Your task to perform on an android device: change keyboard looks Image 0: 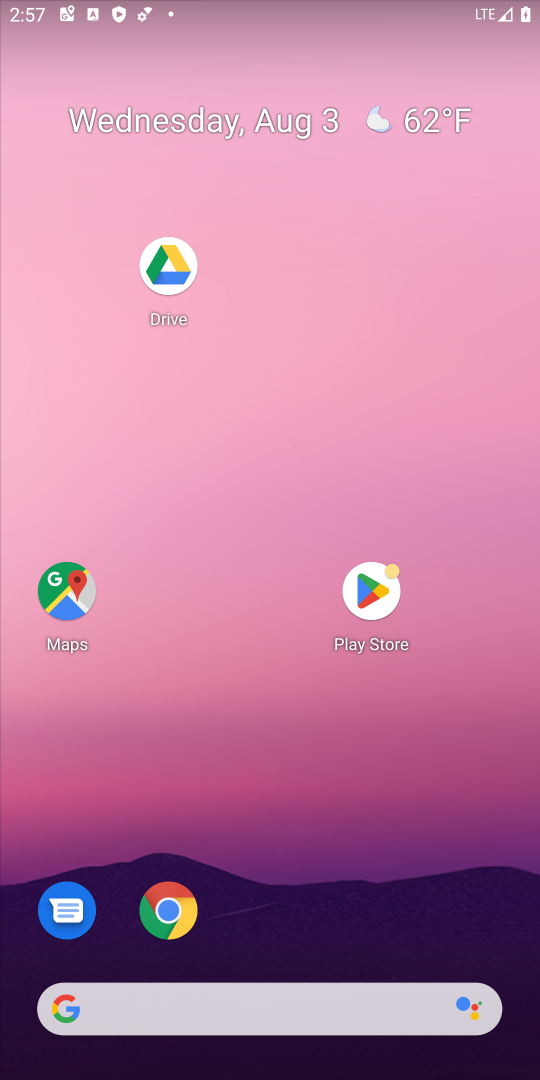
Step 0: drag from (250, 824) to (407, 22)
Your task to perform on an android device: change keyboard looks Image 1: 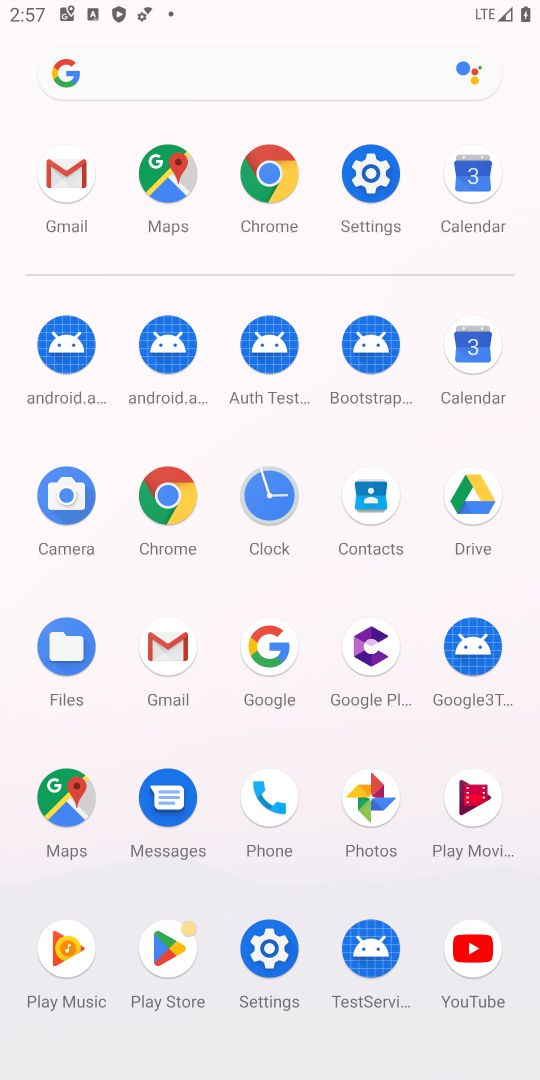
Step 1: click (380, 168)
Your task to perform on an android device: change keyboard looks Image 2: 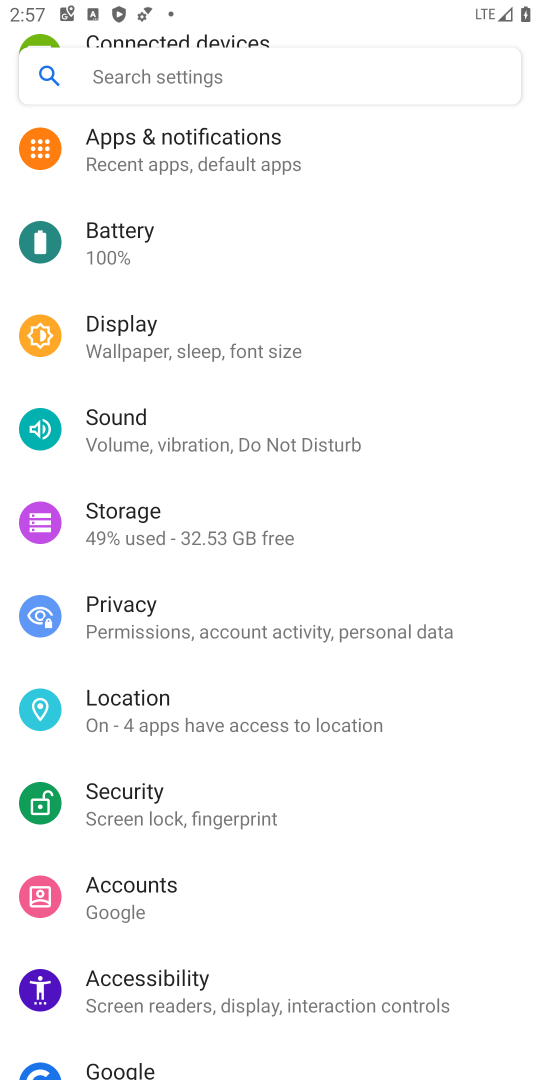
Step 2: drag from (246, 1006) to (206, 181)
Your task to perform on an android device: change keyboard looks Image 3: 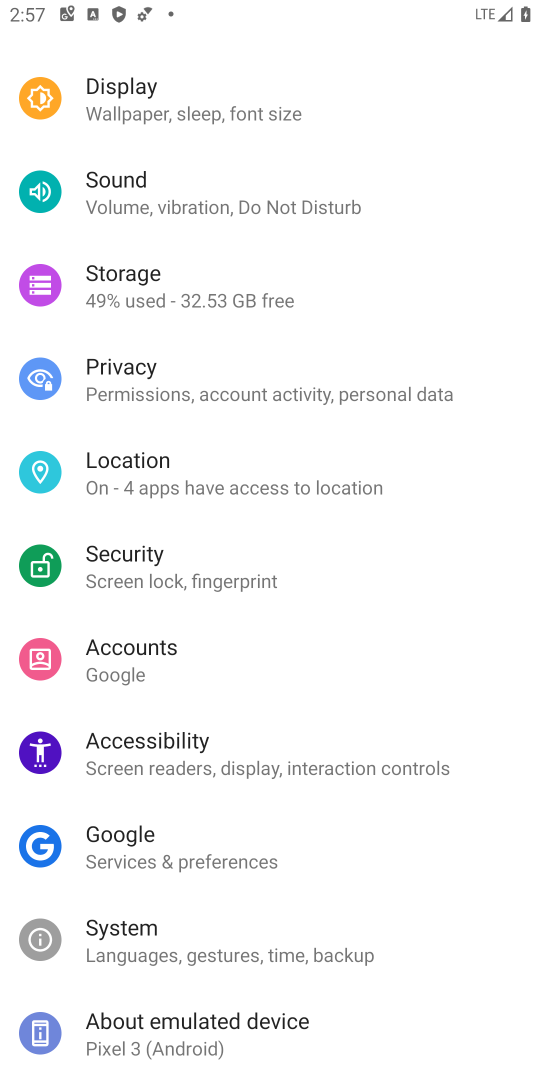
Step 3: click (254, 946)
Your task to perform on an android device: change keyboard looks Image 4: 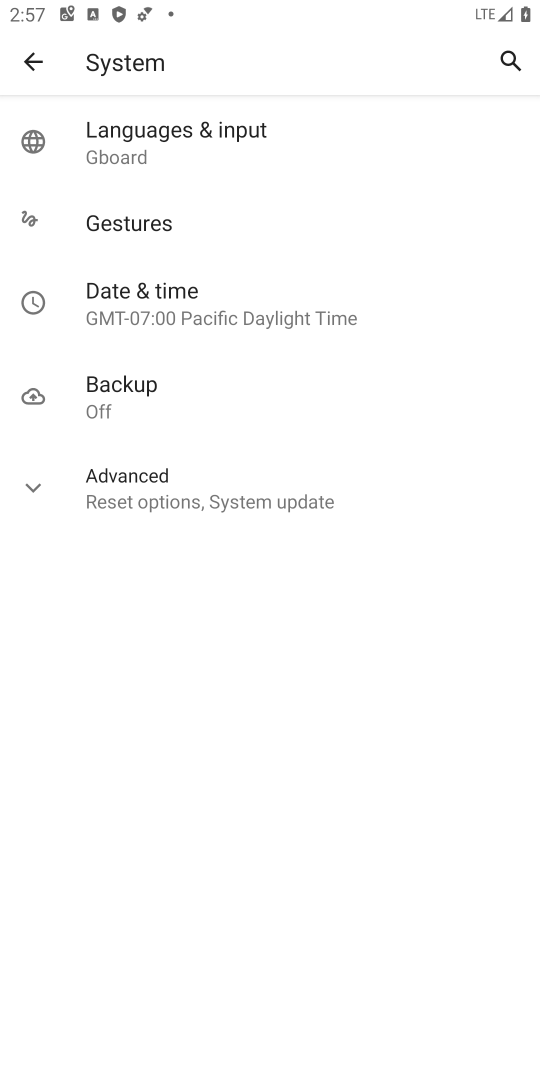
Step 4: click (195, 136)
Your task to perform on an android device: change keyboard looks Image 5: 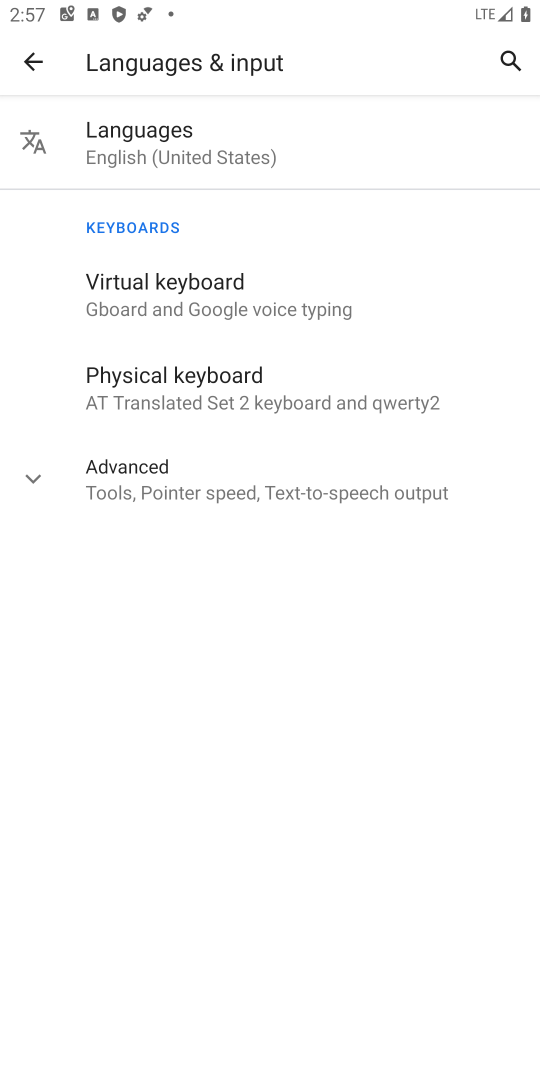
Step 5: click (215, 294)
Your task to perform on an android device: change keyboard looks Image 6: 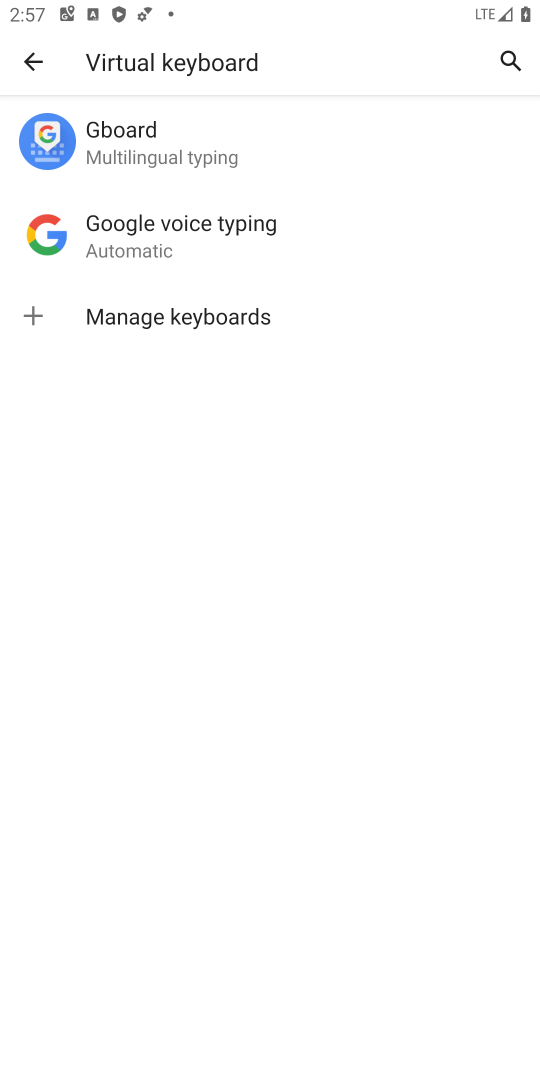
Step 6: click (129, 128)
Your task to perform on an android device: change keyboard looks Image 7: 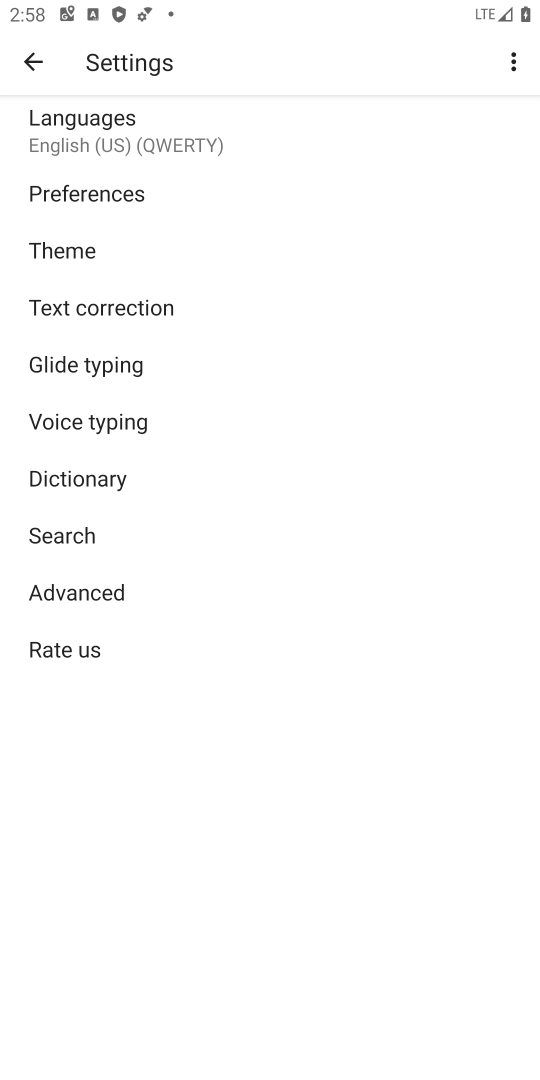
Step 7: click (130, 115)
Your task to perform on an android device: change keyboard looks Image 8: 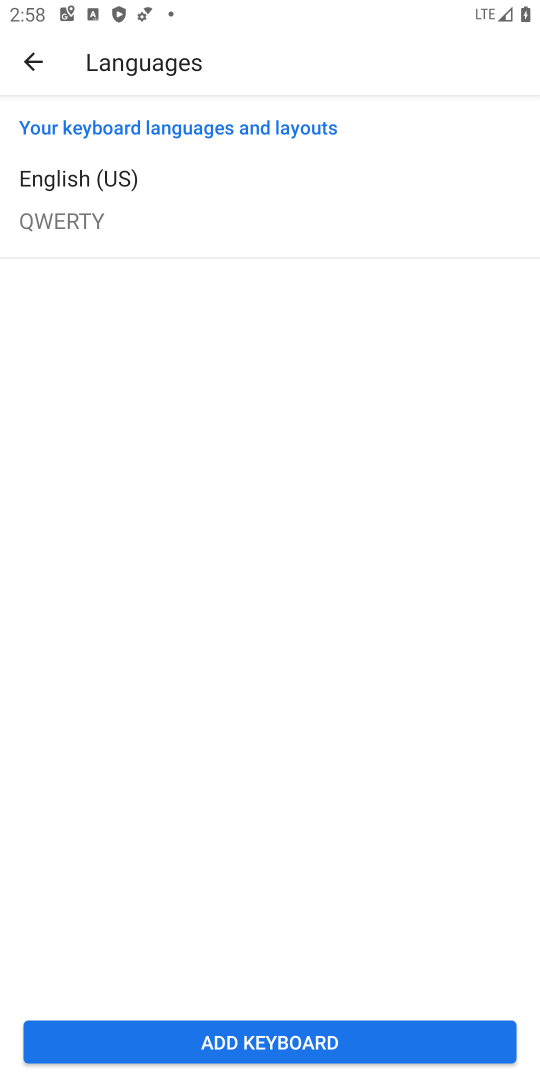
Step 8: press back button
Your task to perform on an android device: change keyboard looks Image 9: 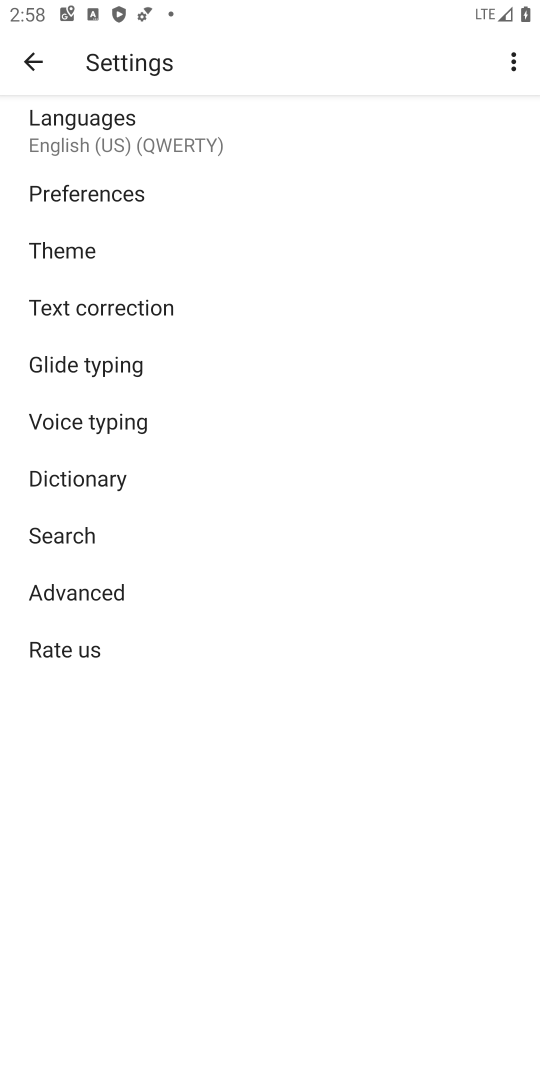
Step 9: click (119, 257)
Your task to perform on an android device: change keyboard looks Image 10: 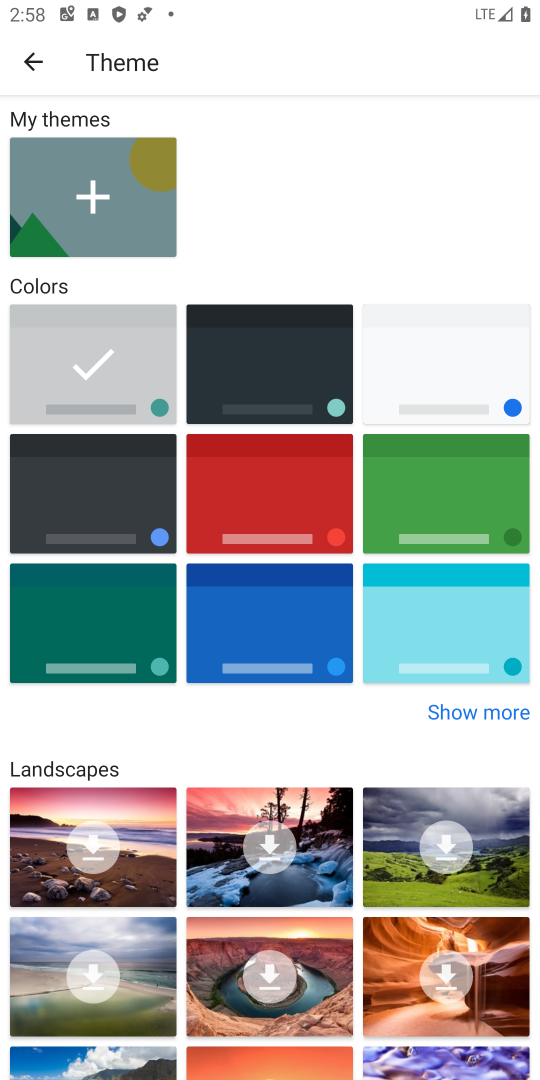
Step 10: click (270, 526)
Your task to perform on an android device: change keyboard looks Image 11: 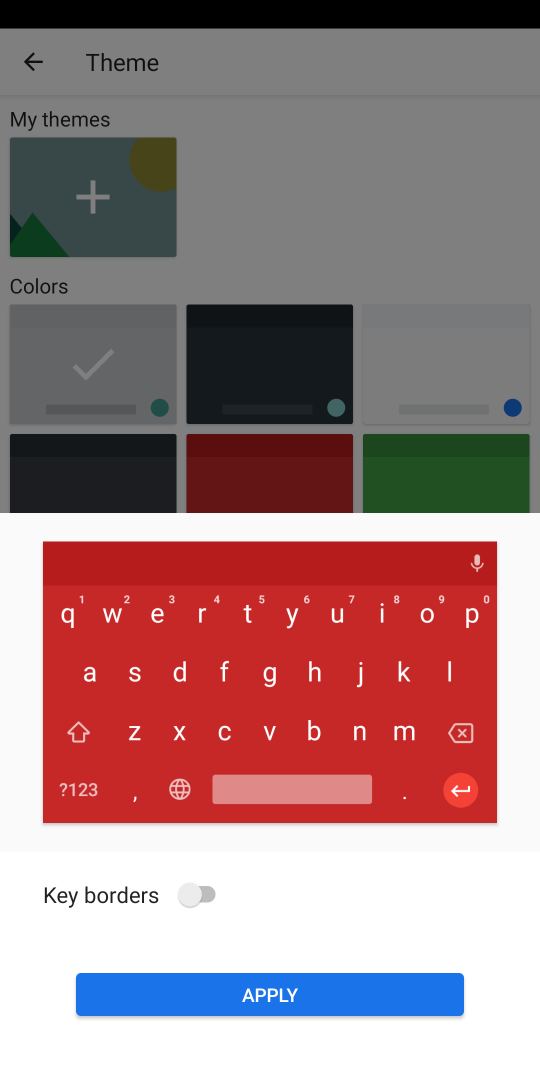
Step 11: click (247, 986)
Your task to perform on an android device: change keyboard looks Image 12: 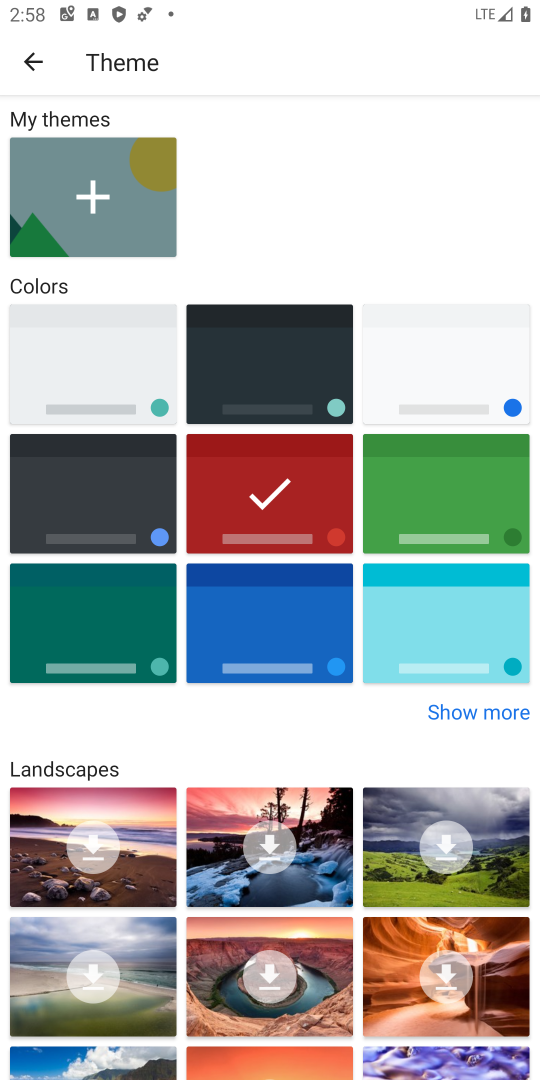
Step 12: task complete